Your task to perform on an android device: toggle sleep mode Image 0: 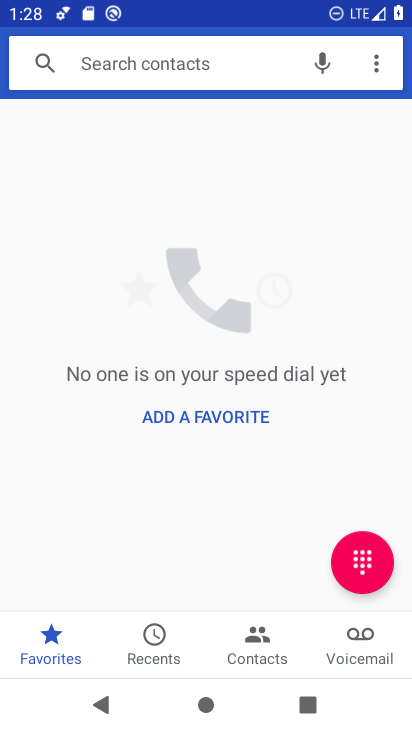
Step 0: press home button
Your task to perform on an android device: toggle sleep mode Image 1: 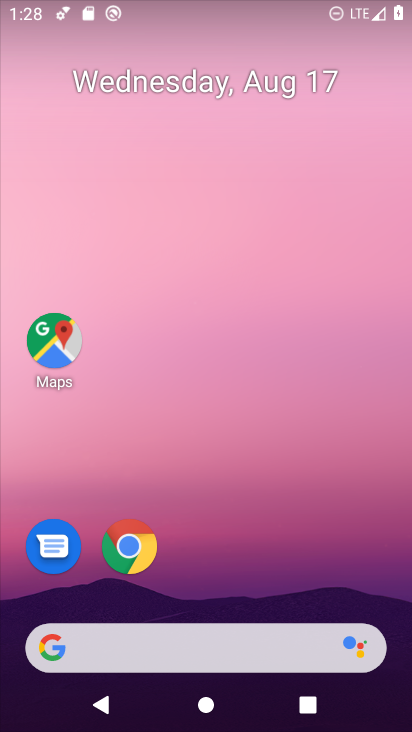
Step 1: drag from (217, 600) to (161, 53)
Your task to perform on an android device: toggle sleep mode Image 2: 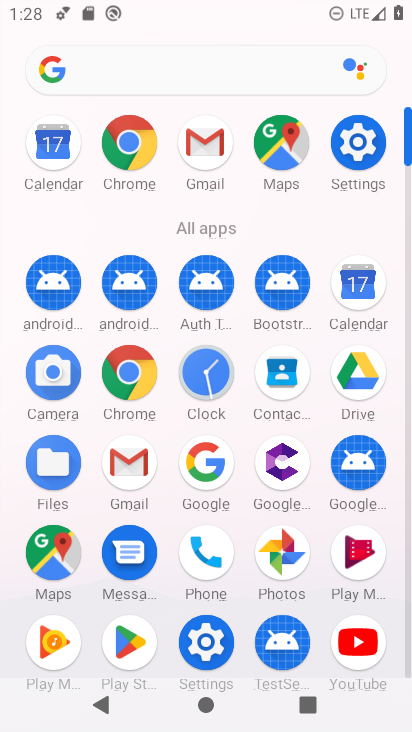
Step 2: click (358, 141)
Your task to perform on an android device: toggle sleep mode Image 3: 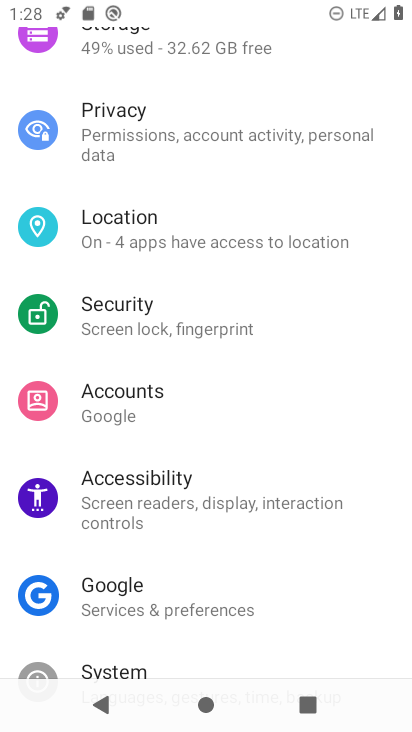
Step 3: drag from (223, 92) to (227, 192)
Your task to perform on an android device: toggle sleep mode Image 4: 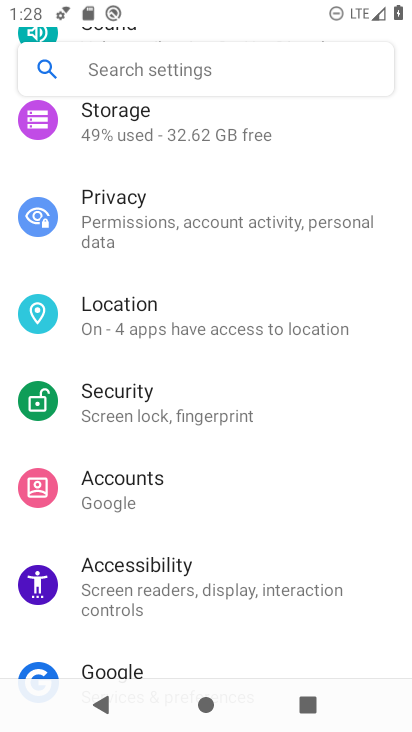
Step 4: drag from (247, 241) to (262, 422)
Your task to perform on an android device: toggle sleep mode Image 5: 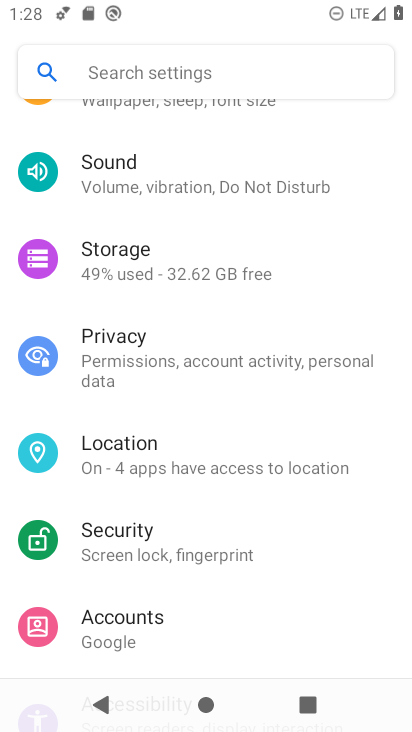
Step 5: drag from (225, 230) to (238, 492)
Your task to perform on an android device: toggle sleep mode Image 6: 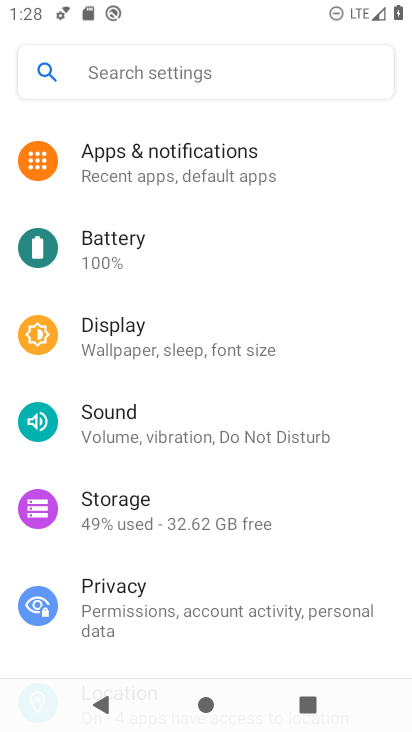
Step 6: click (114, 323)
Your task to perform on an android device: toggle sleep mode Image 7: 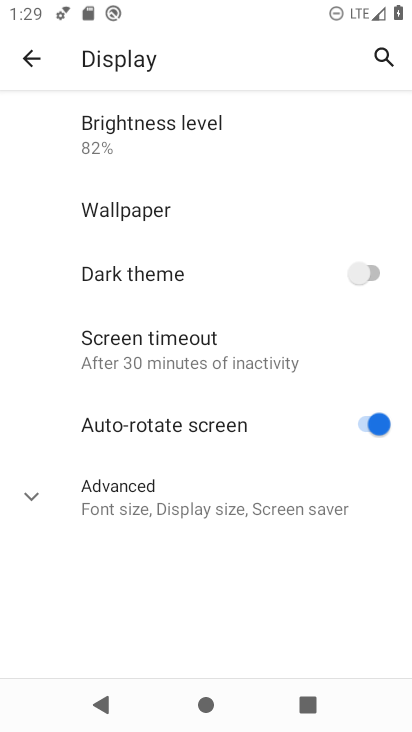
Step 7: task complete